Your task to perform on an android device: Open Chrome and go to settings Image 0: 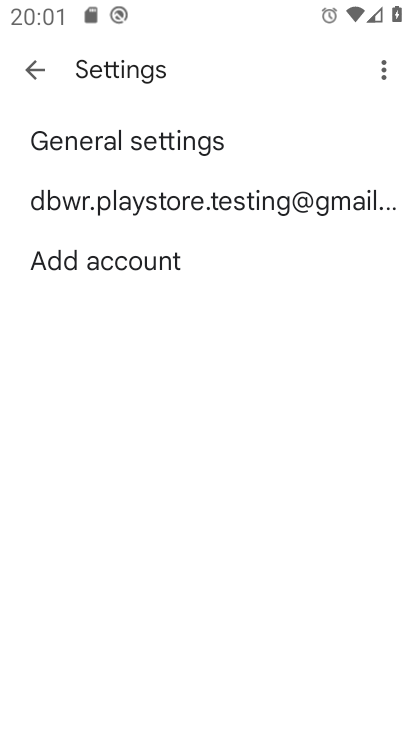
Step 0: press home button
Your task to perform on an android device: Open Chrome and go to settings Image 1: 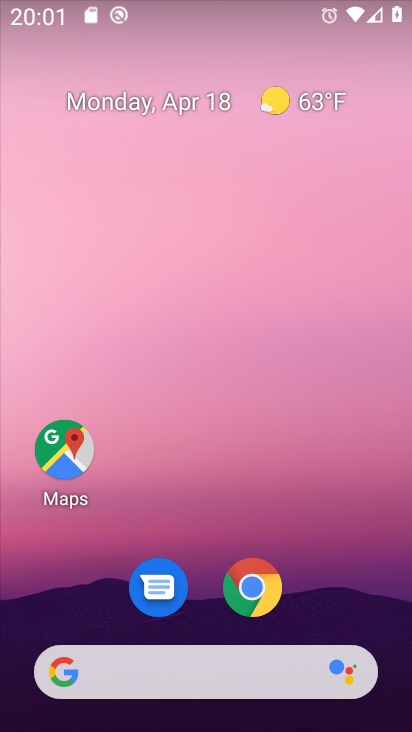
Step 1: click (248, 591)
Your task to perform on an android device: Open Chrome and go to settings Image 2: 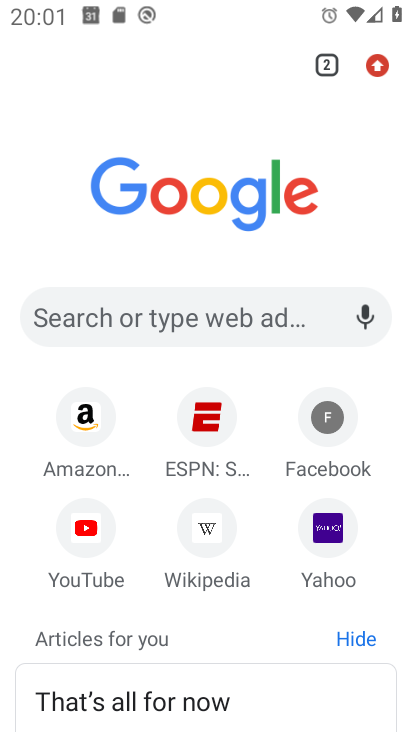
Step 2: click (383, 64)
Your task to perform on an android device: Open Chrome and go to settings Image 3: 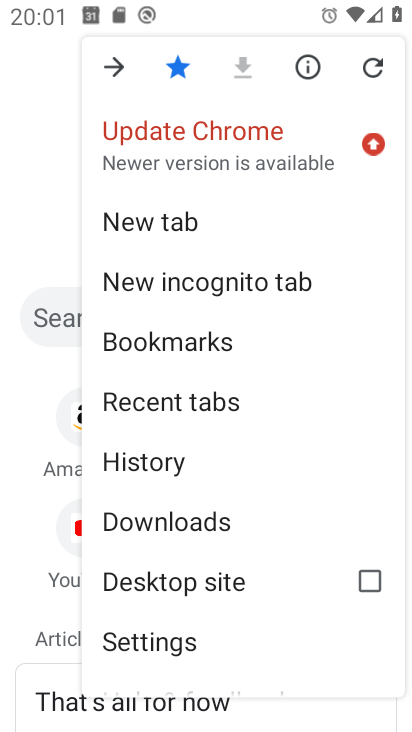
Step 3: click (199, 639)
Your task to perform on an android device: Open Chrome and go to settings Image 4: 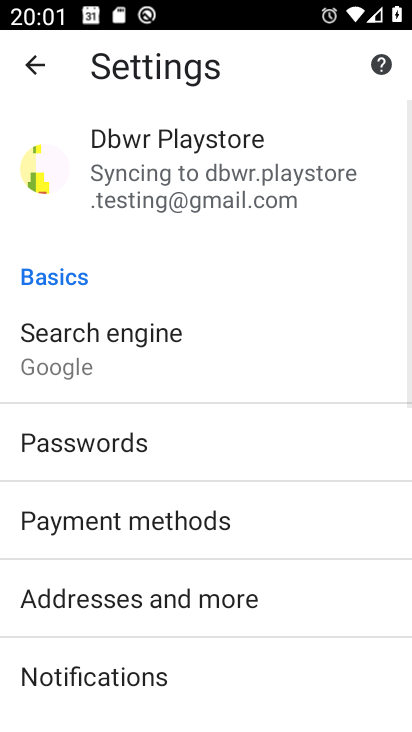
Step 4: task complete